Your task to perform on an android device: Open sound settings Image 0: 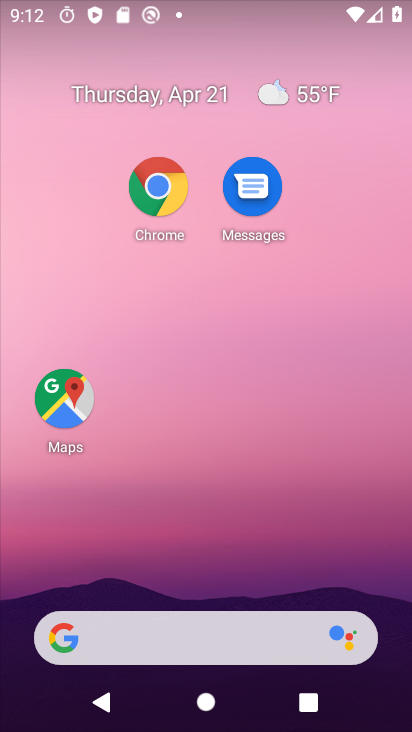
Step 0: drag from (218, 272) to (231, 22)
Your task to perform on an android device: Open sound settings Image 1: 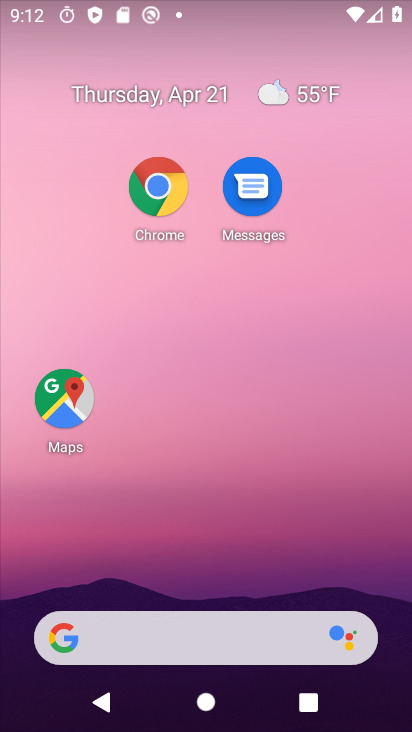
Step 1: drag from (200, 571) to (242, 73)
Your task to perform on an android device: Open sound settings Image 2: 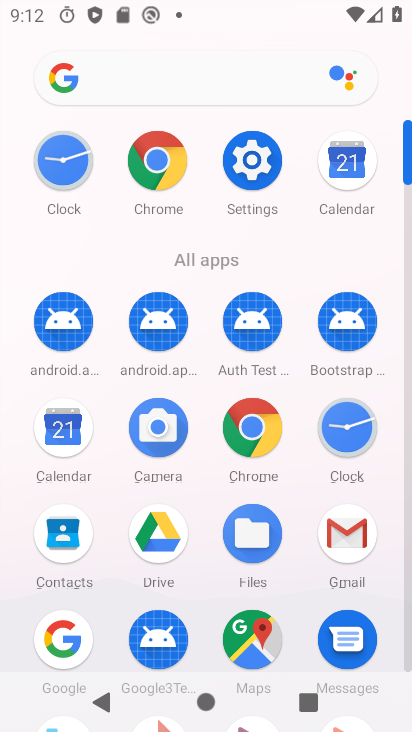
Step 2: click (256, 167)
Your task to perform on an android device: Open sound settings Image 3: 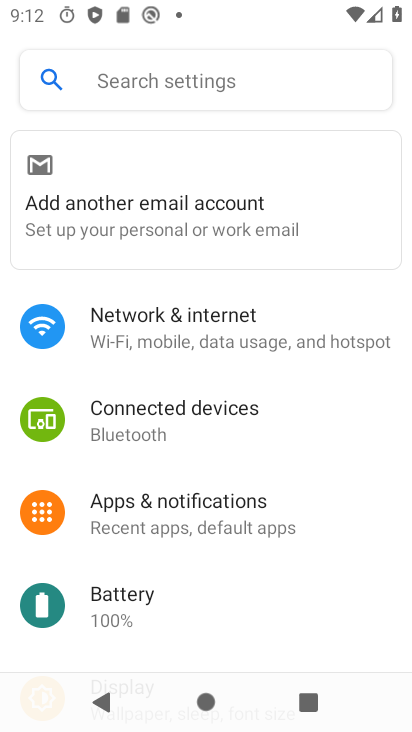
Step 3: drag from (199, 522) to (229, 184)
Your task to perform on an android device: Open sound settings Image 4: 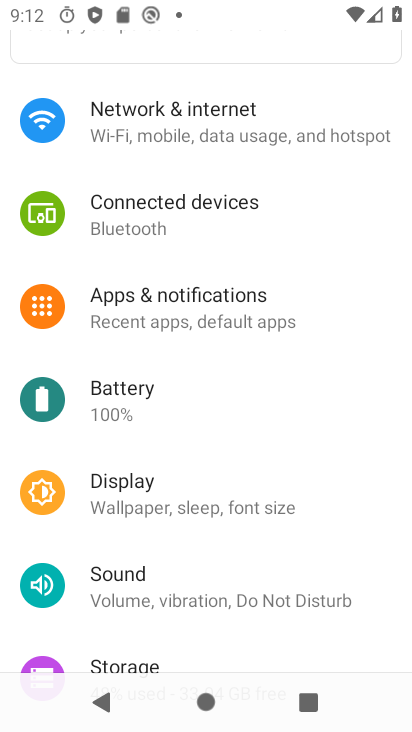
Step 4: click (184, 588)
Your task to perform on an android device: Open sound settings Image 5: 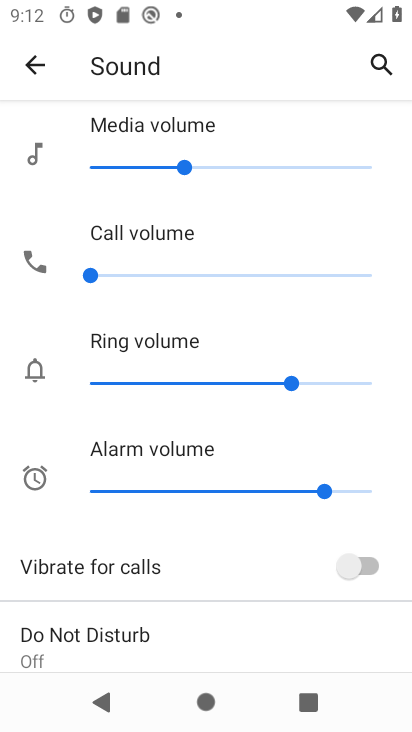
Step 5: task complete